Your task to perform on an android device: Search for vegetarian restaurants on Maps Image 0: 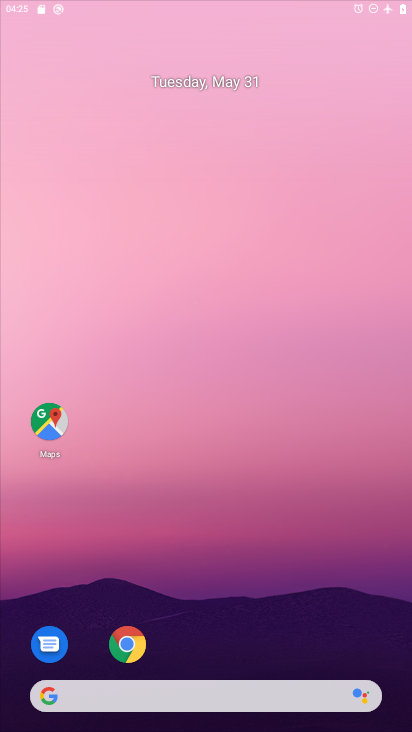
Step 0: drag from (304, 464) to (271, 127)
Your task to perform on an android device: Search for vegetarian restaurants on Maps Image 1: 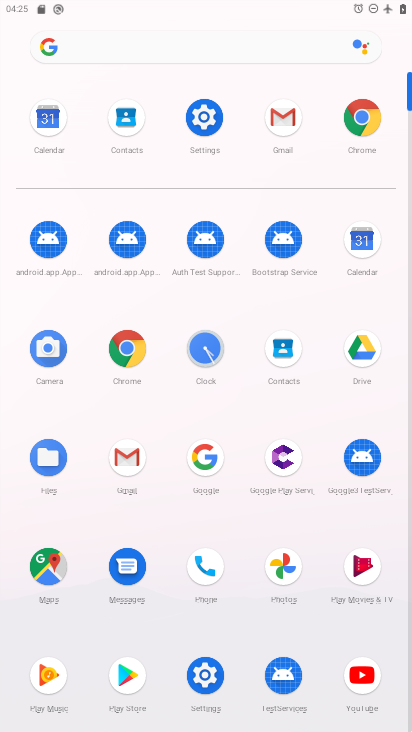
Step 1: click (50, 561)
Your task to perform on an android device: Search for vegetarian restaurants on Maps Image 2: 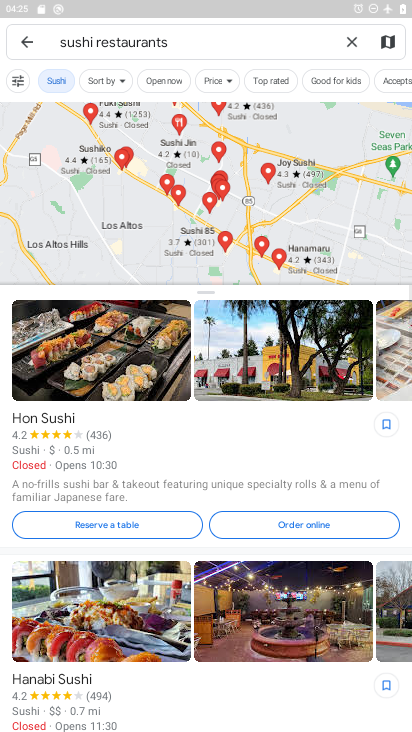
Step 2: click (221, 31)
Your task to perform on an android device: Search for vegetarian restaurants on Maps Image 3: 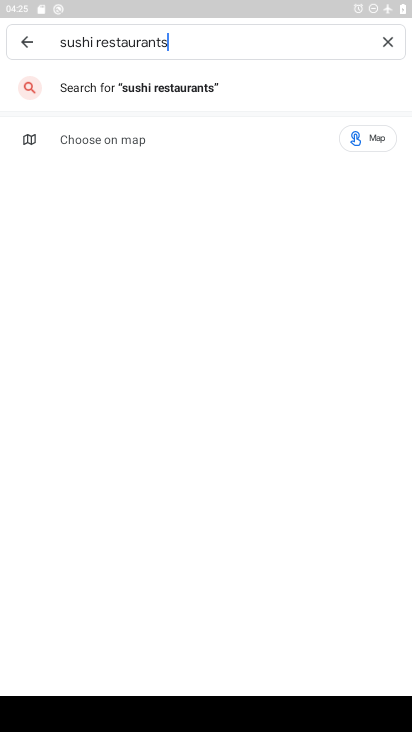
Step 3: click (384, 44)
Your task to perform on an android device: Search for vegetarian restaurants on Maps Image 4: 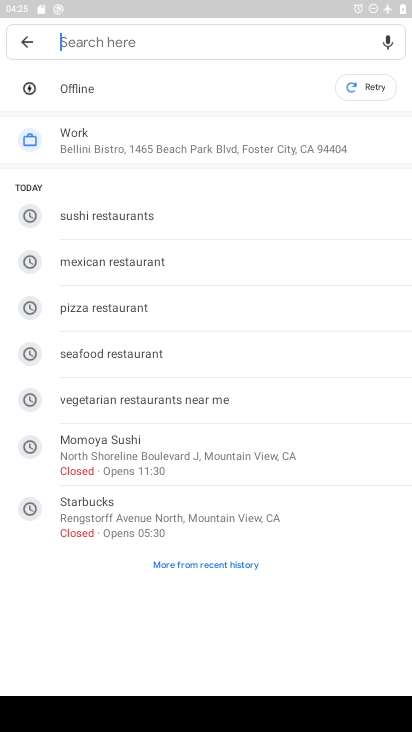
Step 4: type "vegetarian restaurants"
Your task to perform on an android device: Search for vegetarian restaurants on Maps Image 5: 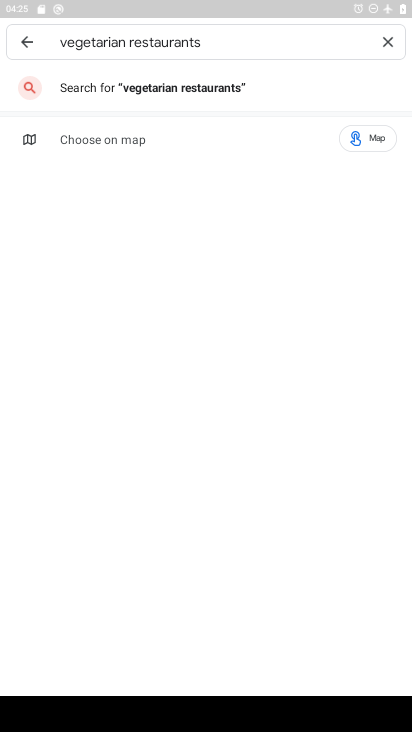
Step 5: click (212, 84)
Your task to perform on an android device: Search for vegetarian restaurants on Maps Image 6: 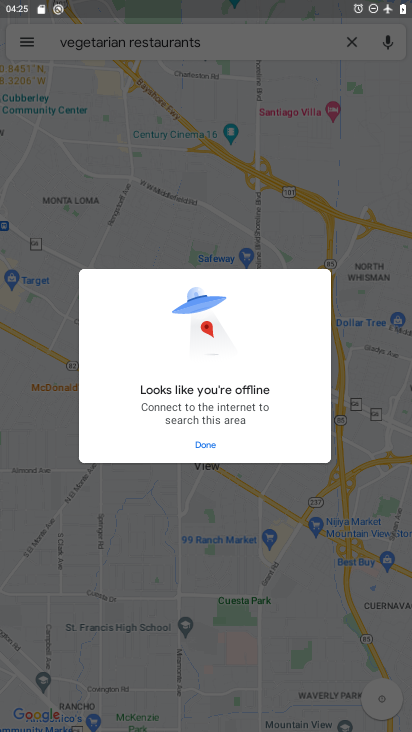
Step 6: task complete